Your task to perform on an android device: snooze an email in the gmail app Image 0: 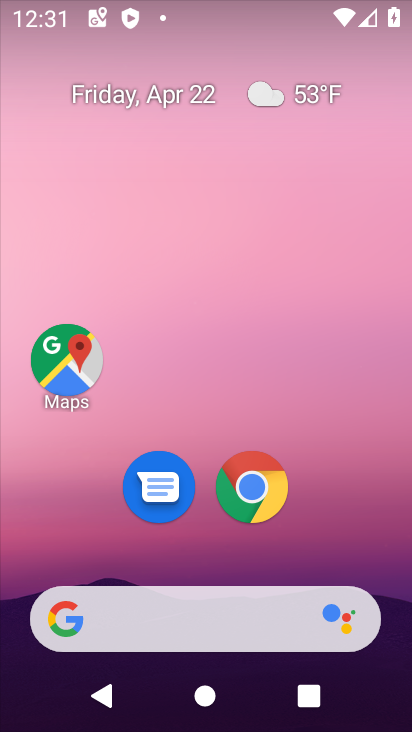
Step 0: drag from (357, 533) to (323, 94)
Your task to perform on an android device: snooze an email in the gmail app Image 1: 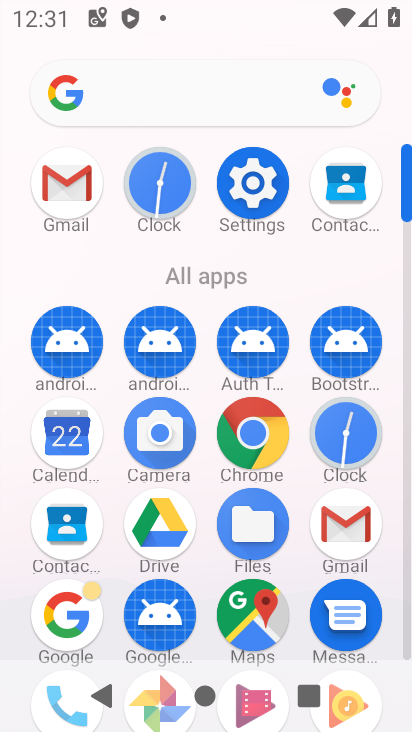
Step 1: click (77, 188)
Your task to perform on an android device: snooze an email in the gmail app Image 2: 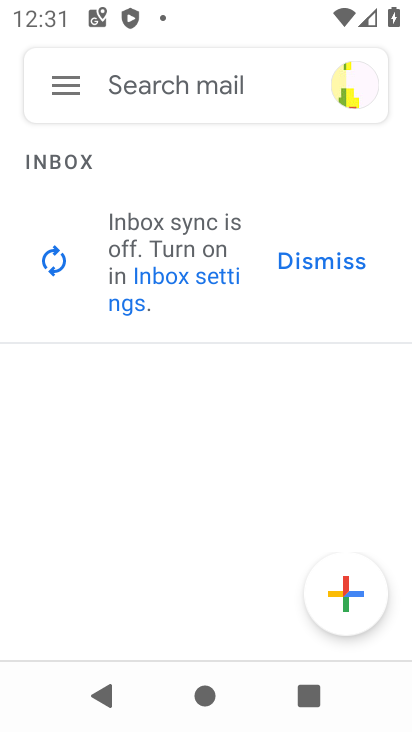
Step 2: click (69, 81)
Your task to perform on an android device: snooze an email in the gmail app Image 3: 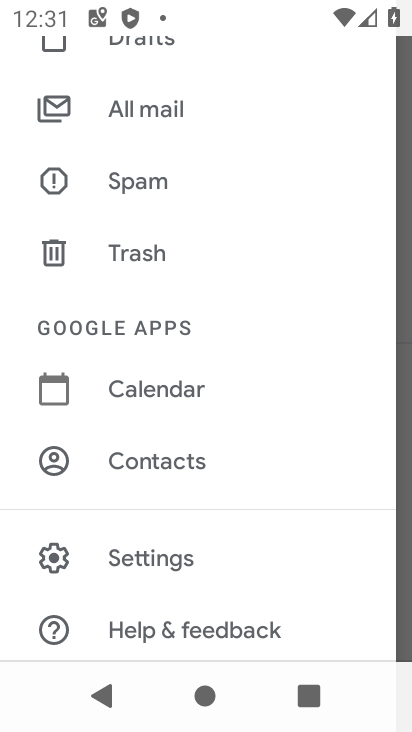
Step 3: drag from (243, 160) to (270, 536)
Your task to perform on an android device: snooze an email in the gmail app Image 4: 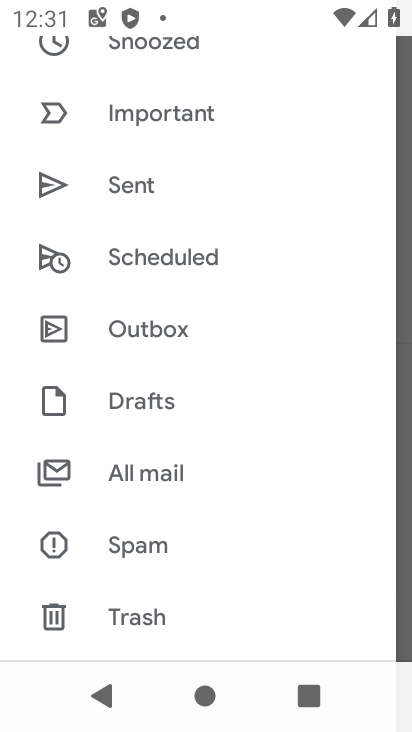
Step 4: drag from (212, 207) to (258, 462)
Your task to perform on an android device: snooze an email in the gmail app Image 5: 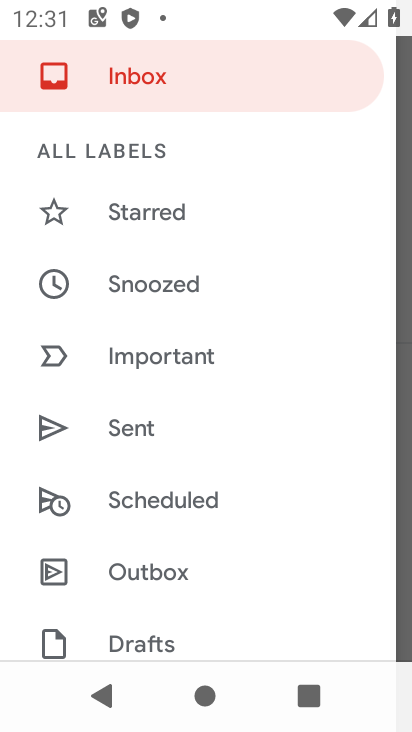
Step 5: click (181, 284)
Your task to perform on an android device: snooze an email in the gmail app Image 6: 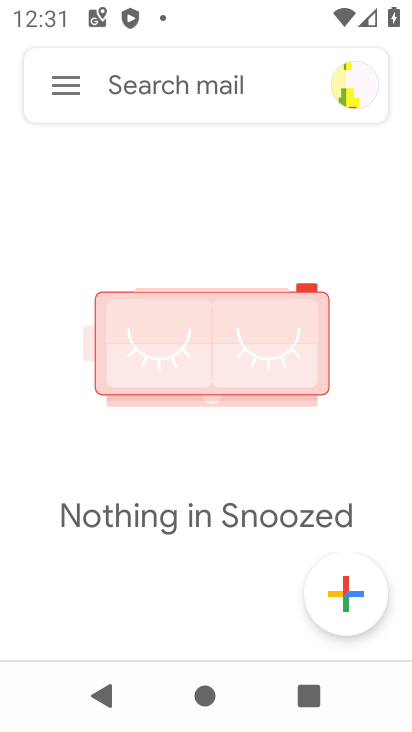
Step 6: task complete